Your task to perform on an android device: change timer sound Image 0: 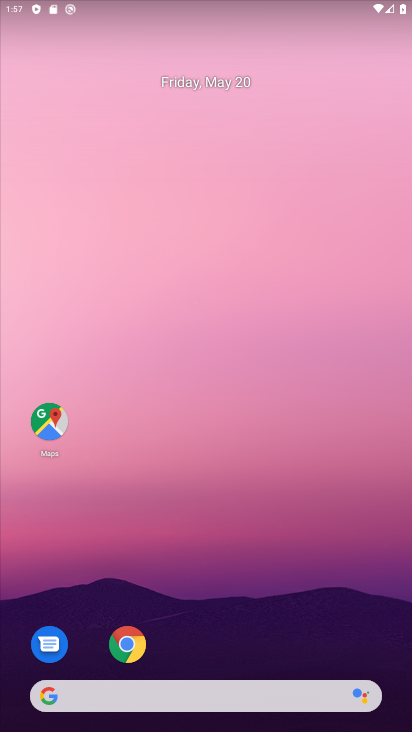
Step 0: drag from (224, 674) to (278, 411)
Your task to perform on an android device: change timer sound Image 1: 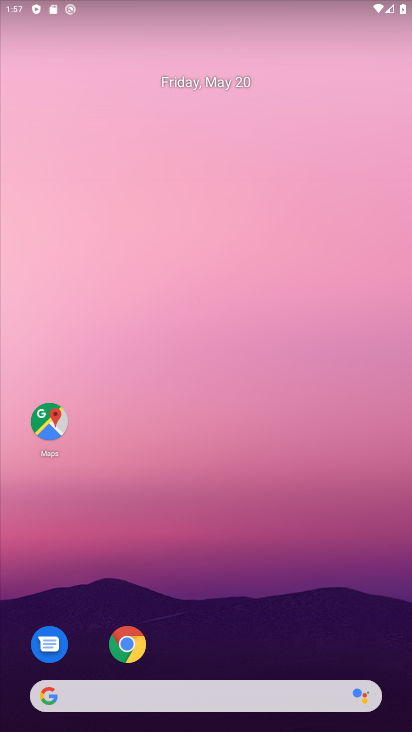
Step 1: drag from (196, 660) to (304, 3)
Your task to perform on an android device: change timer sound Image 2: 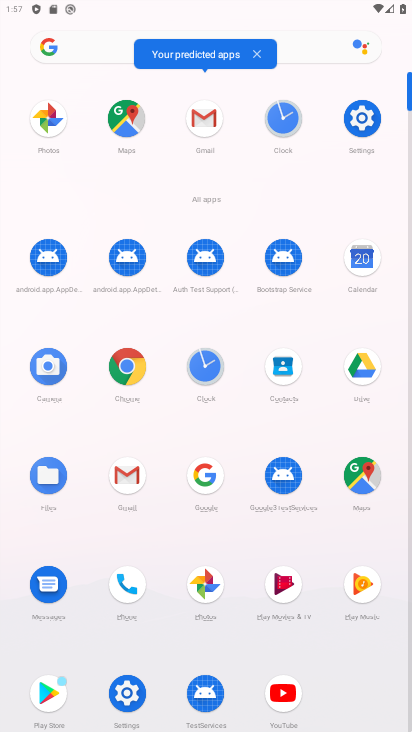
Step 2: click (281, 131)
Your task to perform on an android device: change timer sound Image 3: 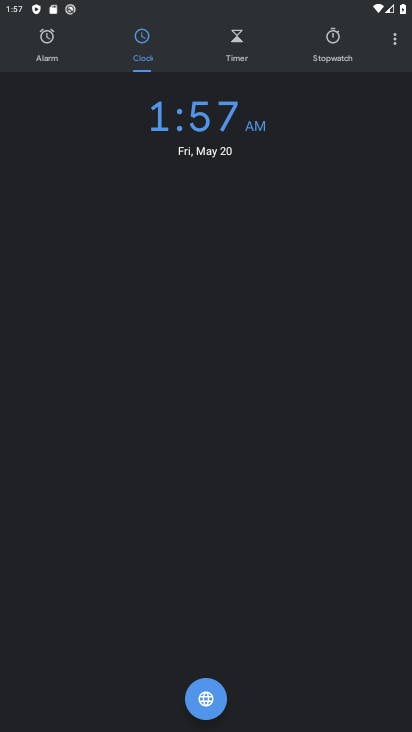
Step 3: click (392, 36)
Your task to perform on an android device: change timer sound Image 4: 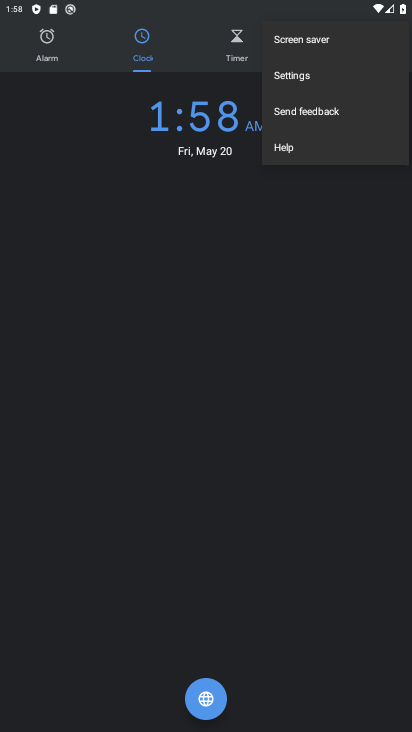
Step 4: click (317, 82)
Your task to perform on an android device: change timer sound Image 5: 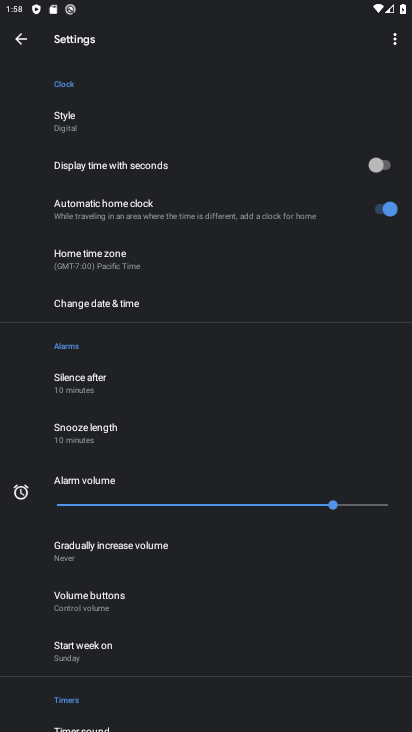
Step 5: drag from (241, 440) to (313, 125)
Your task to perform on an android device: change timer sound Image 6: 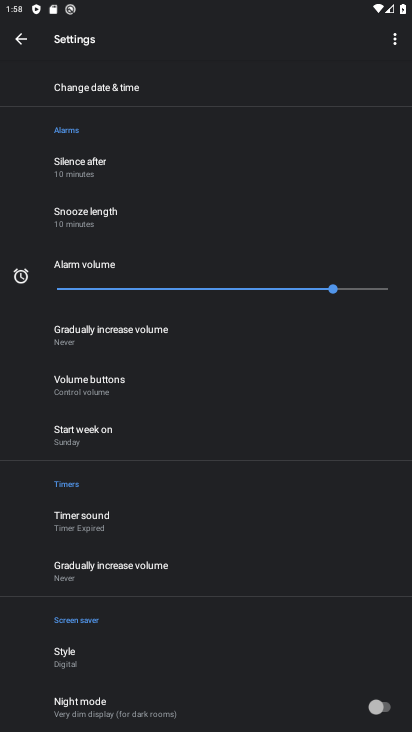
Step 6: drag from (161, 637) to (307, 96)
Your task to perform on an android device: change timer sound Image 7: 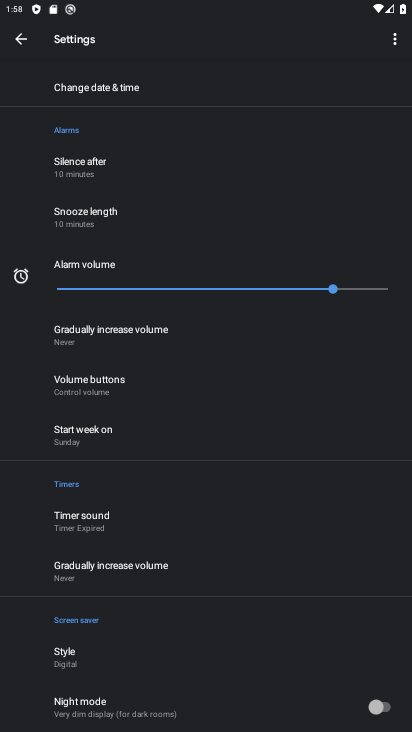
Step 7: click (177, 522)
Your task to perform on an android device: change timer sound Image 8: 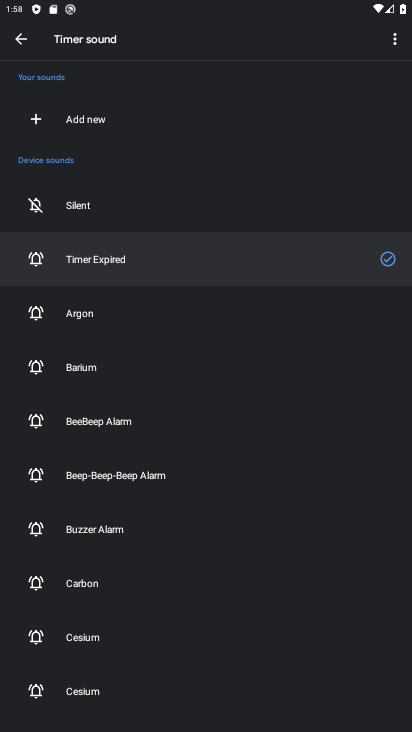
Step 8: click (113, 314)
Your task to perform on an android device: change timer sound Image 9: 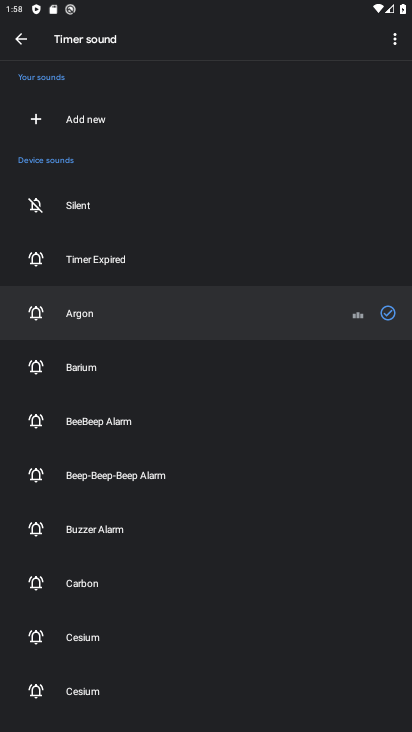
Step 9: task complete